Your task to perform on an android device: Go to ESPN.com Image 0: 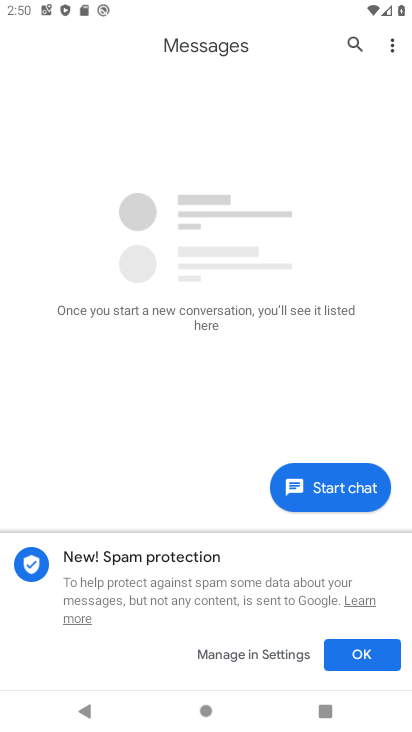
Step 0: press home button
Your task to perform on an android device: Go to ESPN.com Image 1: 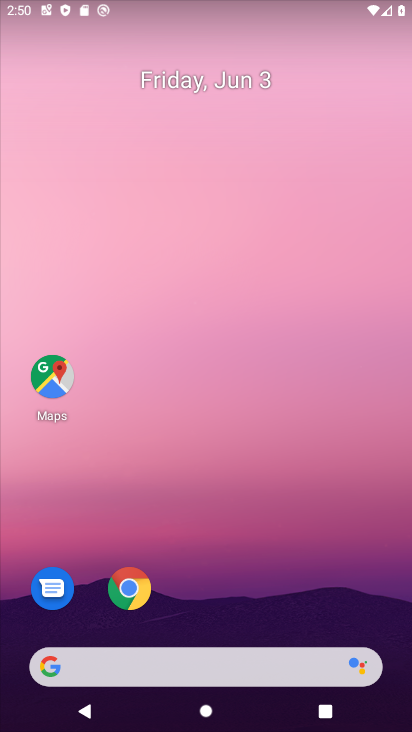
Step 1: drag from (261, 543) to (318, 77)
Your task to perform on an android device: Go to ESPN.com Image 2: 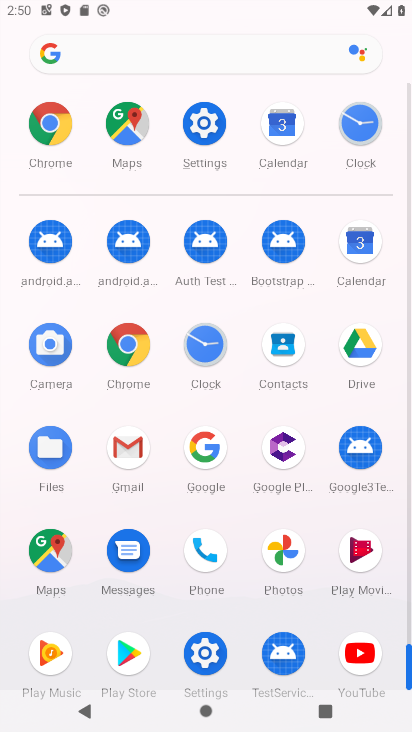
Step 2: click (137, 351)
Your task to perform on an android device: Go to ESPN.com Image 3: 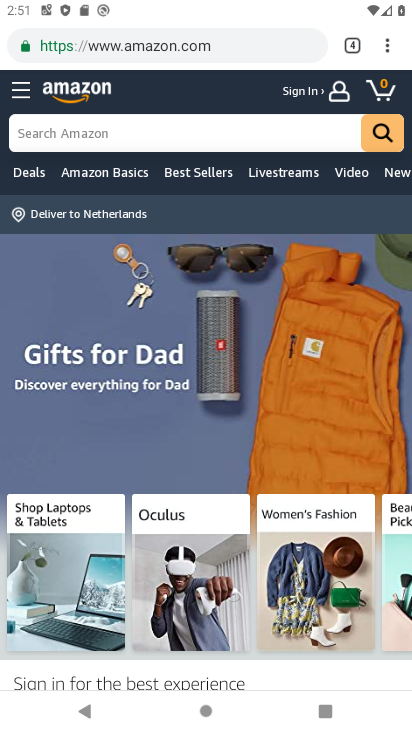
Step 3: click (363, 41)
Your task to perform on an android device: Go to ESPN.com Image 4: 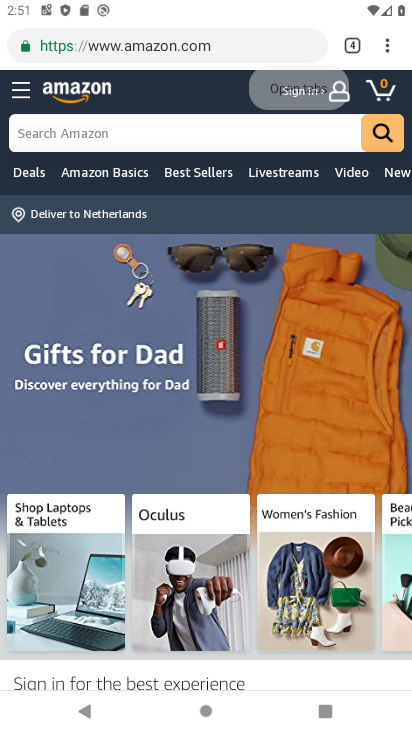
Step 4: click (353, 45)
Your task to perform on an android device: Go to ESPN.com Image 5: 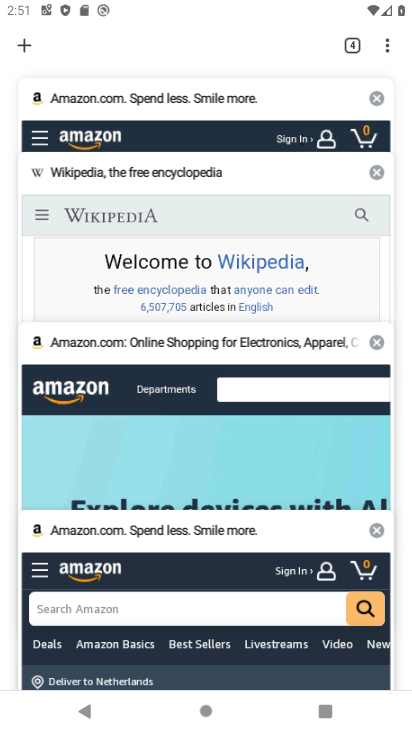
Step 5: click (34, 47)
Your task to perform on an android device: Go to ESPN.com Image 6: 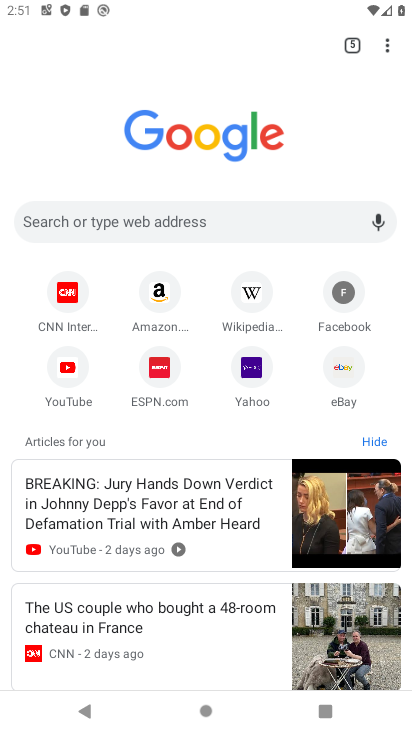
Step 6: click (157, 384)
Your task to perform on an android device: Go to ESPN.com Image 7: 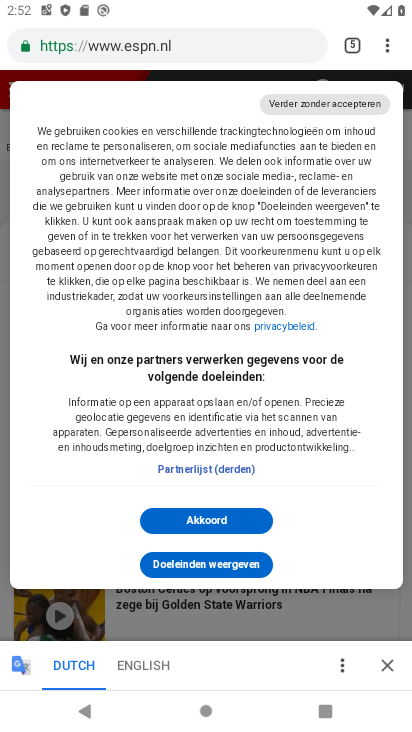
Step 7: press home button
Your task to perform on an android device: Go to ESPN.com Image 8: 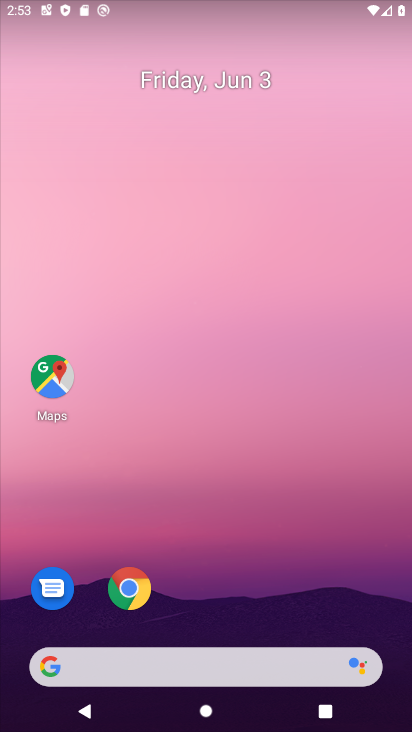
Step 8: click (137, 586)
Your task to perform on an android device: Go to ESPN.com Image 9: 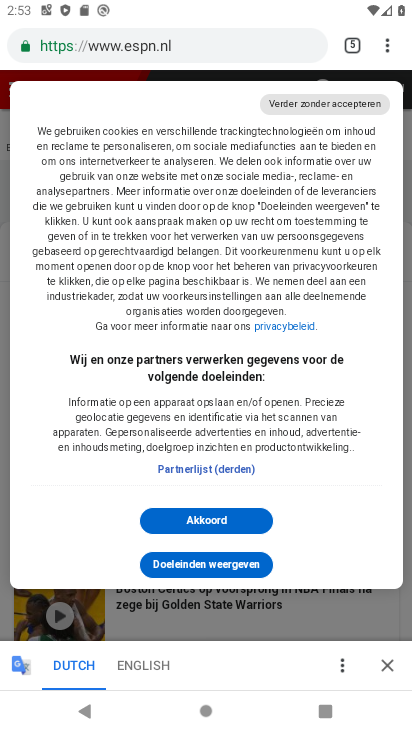
Step 9: task complete